Your task to perform on an android device: toggle improve location accuracy Image 0: 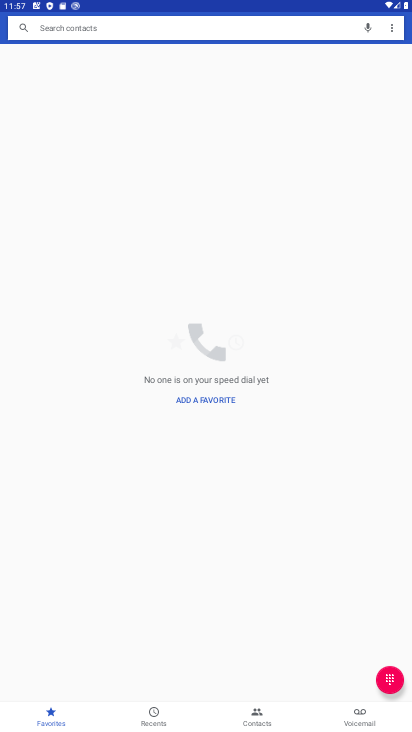
Step 0: press home button
Your task to perform on an android device: toggle improve location accuracy Image 1: 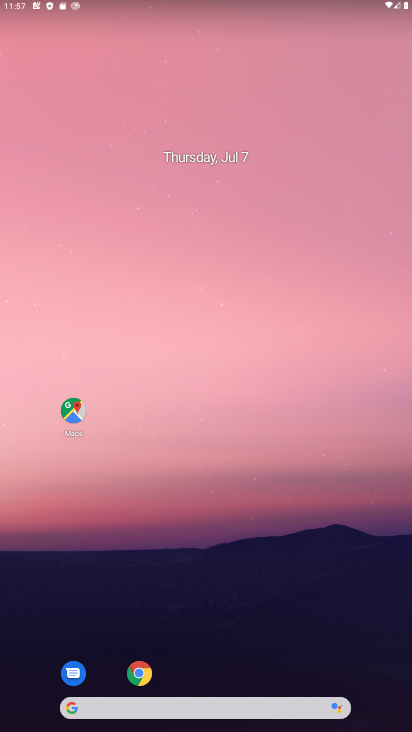
Step 1: drag from (242, 657) to (218, 112)
Your task to perform on an android device: toggle improve location accuracy Image 2: 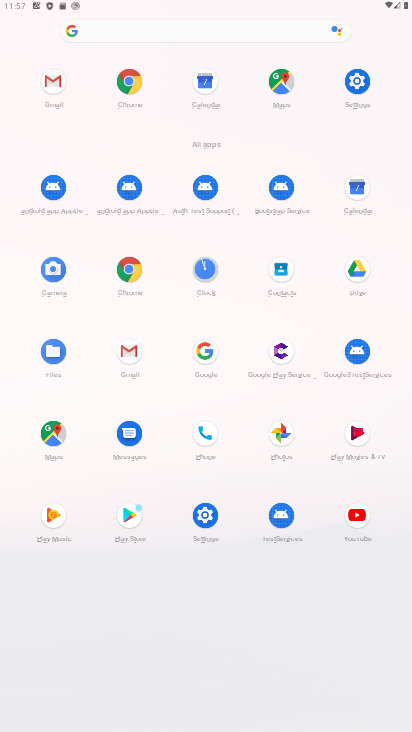
Step 2: click (206, 511)
Your task to perform on an android device: toggle improve location accuracy Image 3: 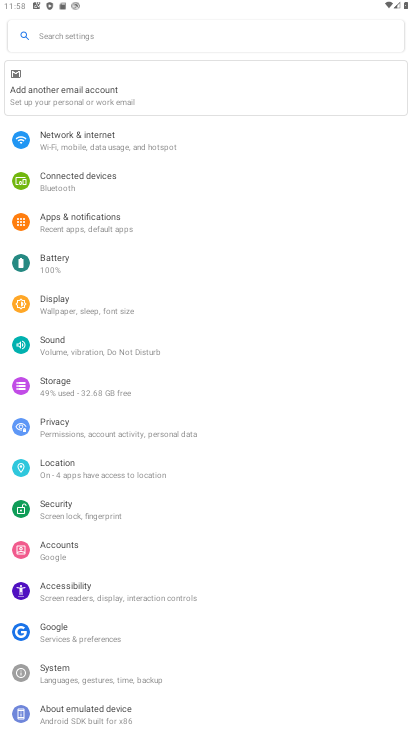
Step 3: click (91, 479)
Your task to perform on an android device: toggle improve location accuracy Image 4: 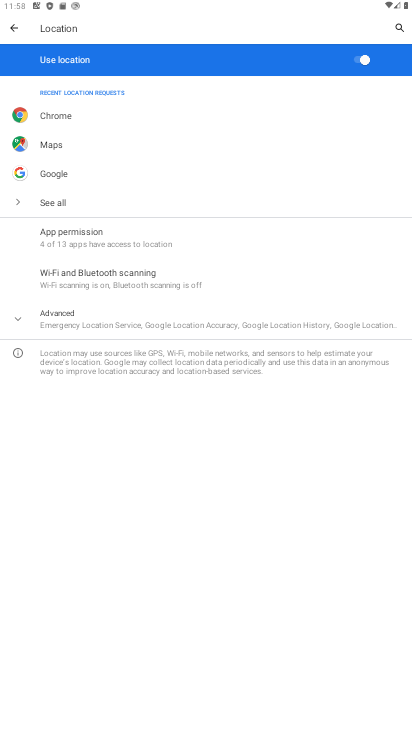
Step 4: click (124, 324)
Your task to perform on an android device: toggle improve location accuracy Image 5: 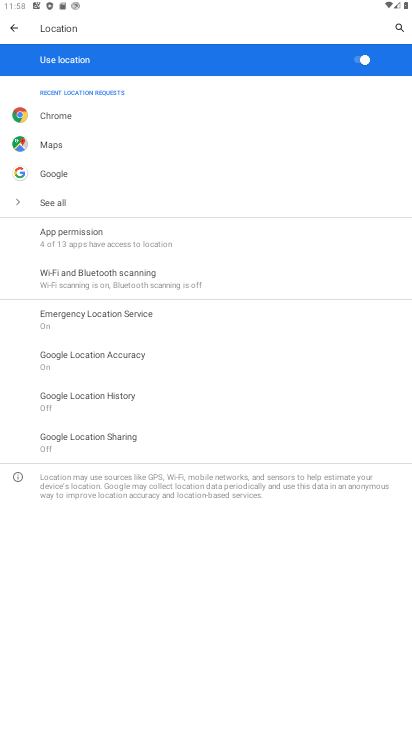
Step 5: click (118, 350)
Your task to perform on an android device: toggle improve location accuracy Image 6: 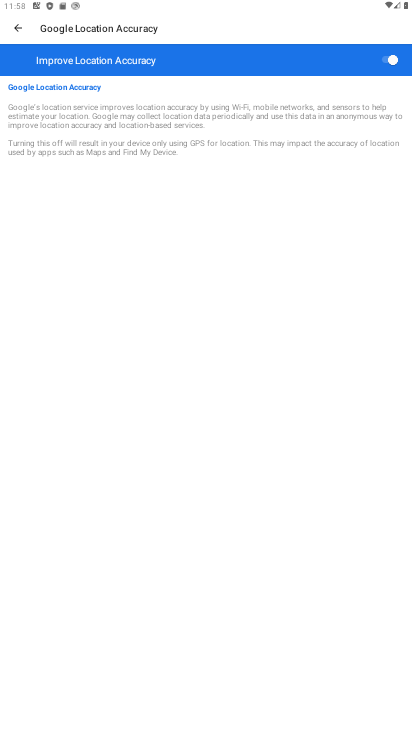
Step 6: click (389, 57)
Your task to perform on an android device: toggle improve location accuracy Image 7: 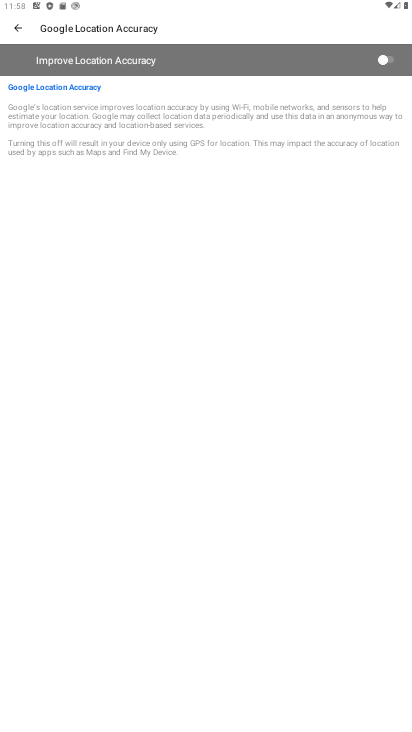
Step 7: task complete